Your task to perform on an android device: turn on showing notifications on the lock screen Image 0: 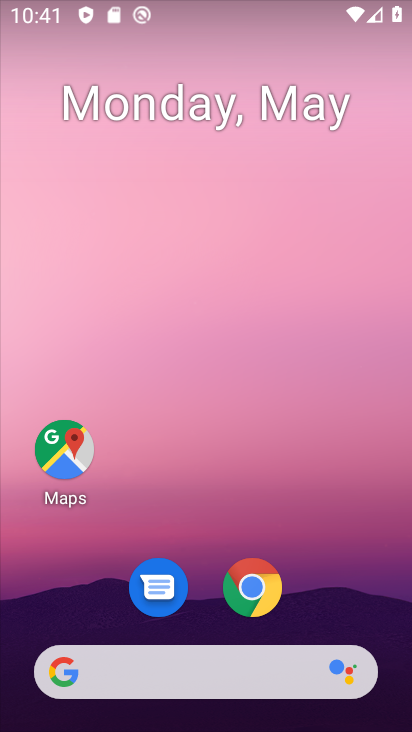
Step 0: drag from (384, 640) to (332, 105)
Your task to perform on an android device: turn on showing notifications on the lock screen Image 1: 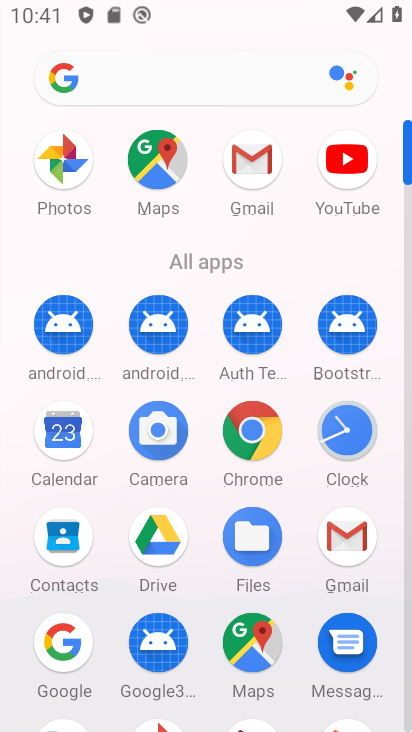
Step 1: click (411, 691)
Your task to perform on an android device: turn on showing notifications on the lock screen Image 2: 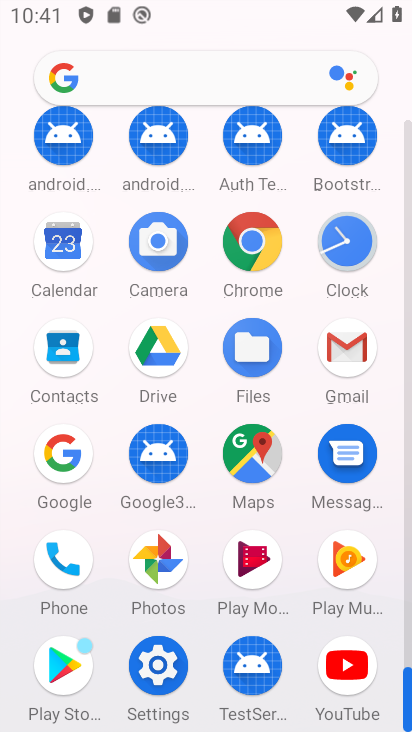
Step 2: click (160, 673)
Your task to perform on an android device: turn on showing notifications on the lock screen Image 3: 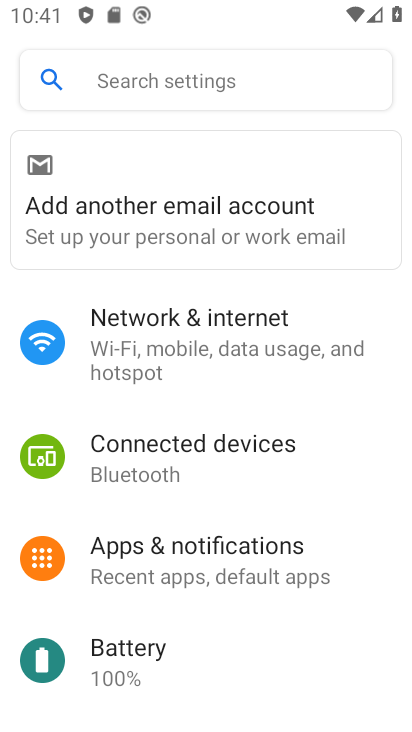
Step 3: click (244, 553)
Your task to perform on an android device: turn on showing notifications on the lock screen Image 4: 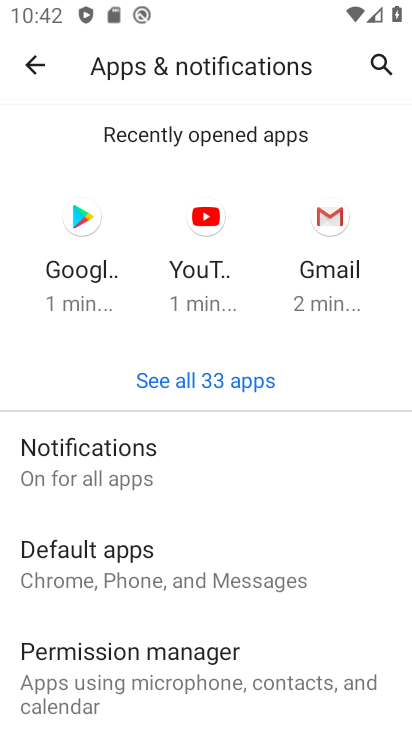
Step 4: click (182, 459)
Your task to perform on an android device: turn on showing notifications on the lock screen Image 5: 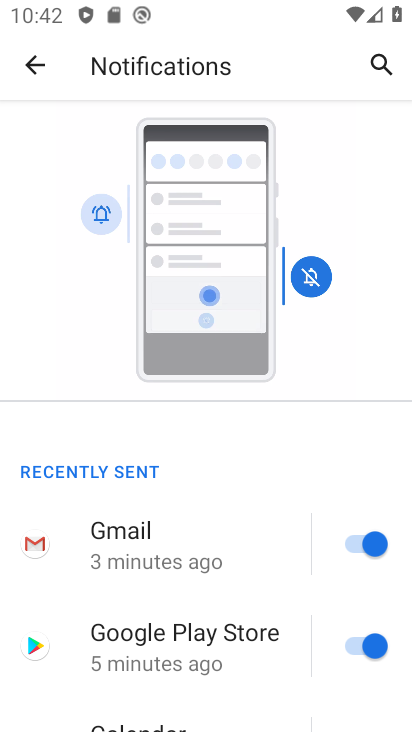
Step 5: drag from (226, 709) to (214, 97)
Your task to perform on an android device: turn on showing notifications on the lock screen Image 6: 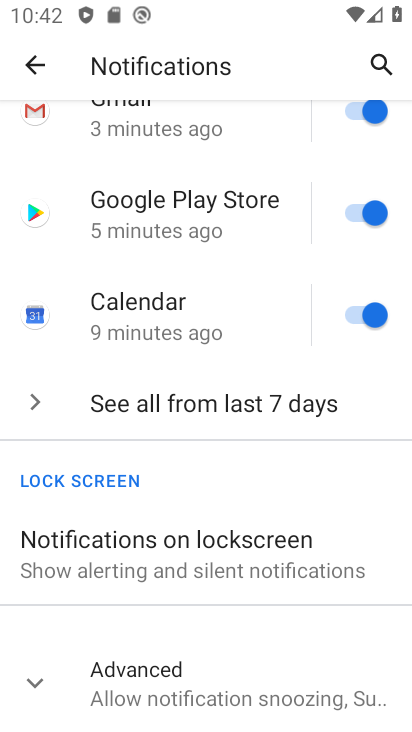
Step 6: click (232, 564)
Your task to perform on an android device: turn on showing notifications on the lock screen Image 7: 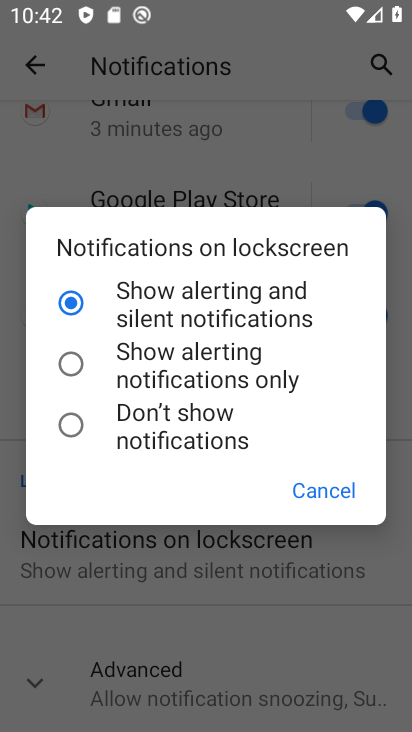
Step 7: task complete